Your task to perform on an android device: set the timer Image 0: 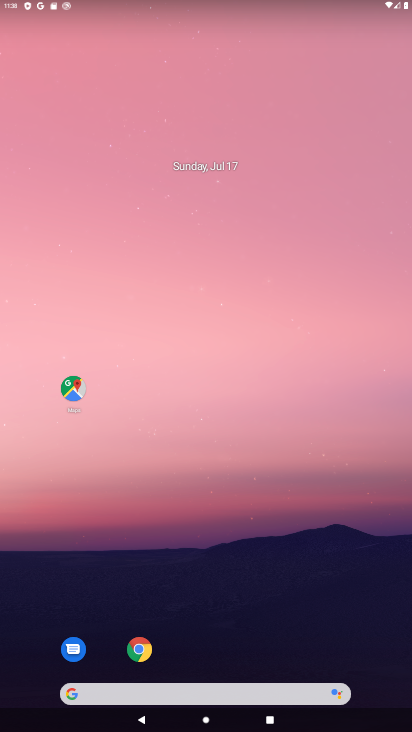
Step 0: drag from (188, 640) to (267, 92)
Your task to perform on an android device: set the timer Image 1: 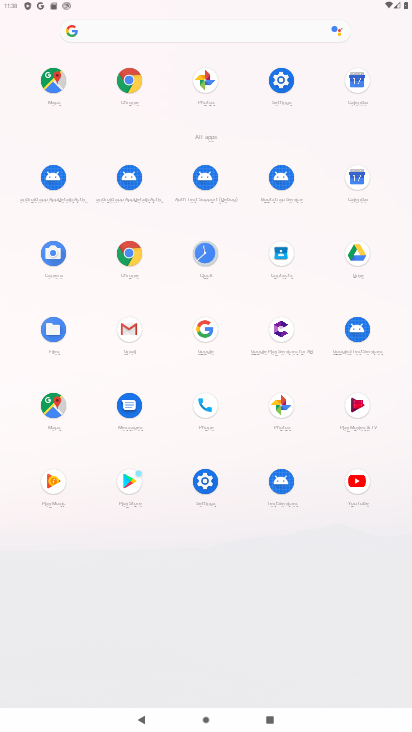
Step 1: click (203, 253)
Your task to perform on an android device: set the timer Image 2: 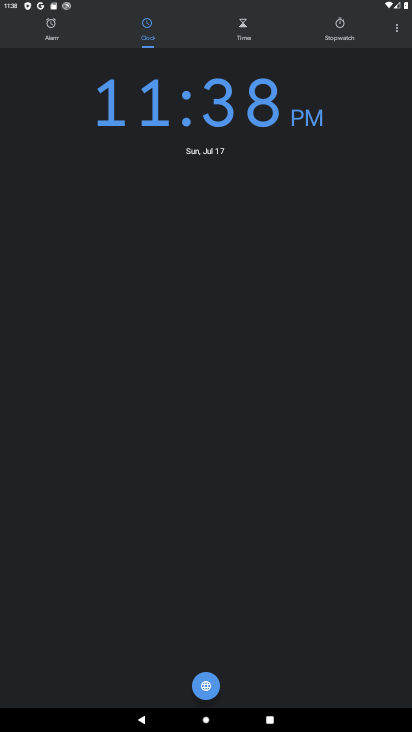
Step 2: click (247, 36)
Your task to perform on an android device: set the timer Image 3: 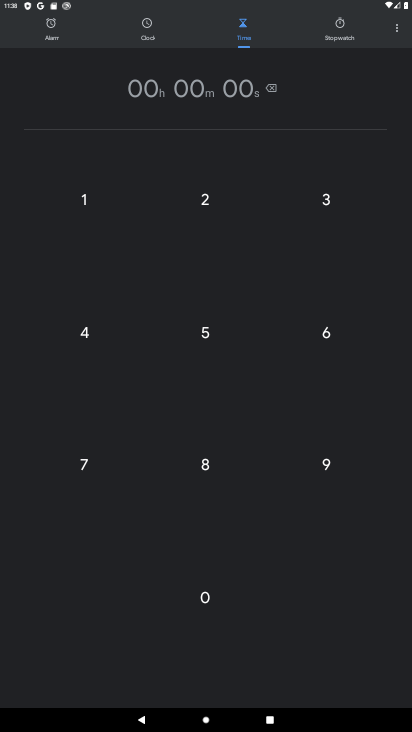
Step 3: task complete